Your task to perform on an android device: When is my next meeting? Image 0: 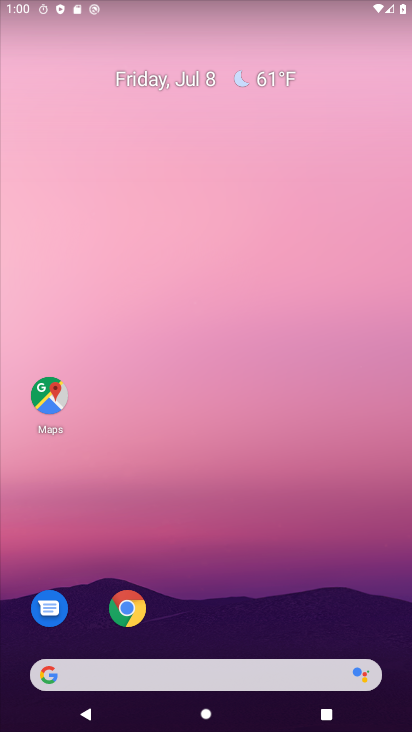
Step 0: drag from (253, 631) to (299, 115)
Your task to perform on an android device: When is my next meeting? Image 1: 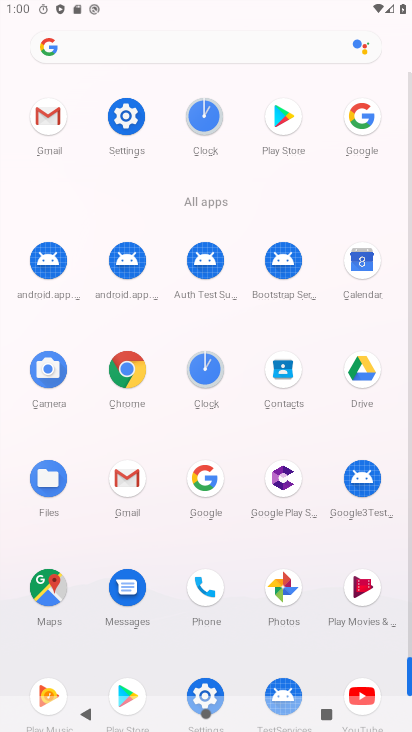
Step 1: click (362, 263)
Your task to perform on an android device: When is my next meeting? Image 2: 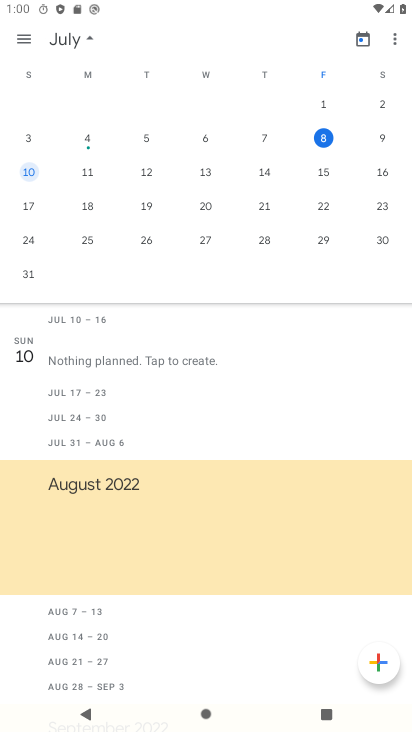
Step 2: click (89, 173)
Your task to perform on an android device: When is my next meeting? Image 3: 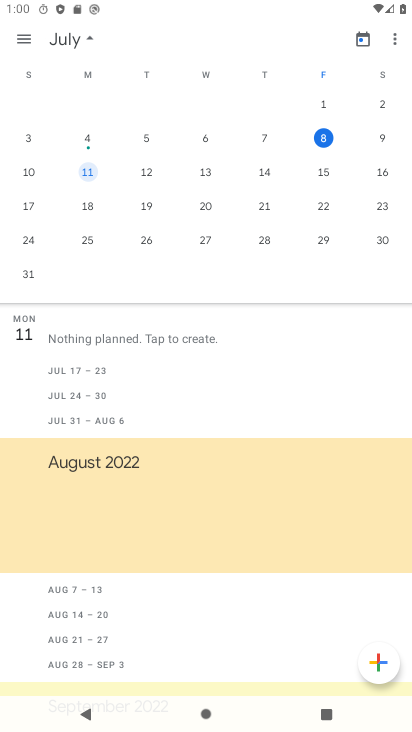
Step 3: task complete